Your task to perform on an android device: Open calendar and show me the fourth week of next month Image 0: 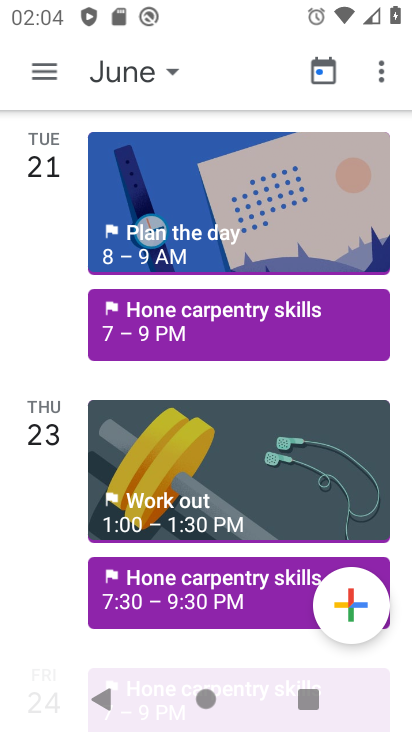
Step 0: click (173, 81)
Your task to perform on an android device: Open calendar and show me the fourth week of next month Image 1: 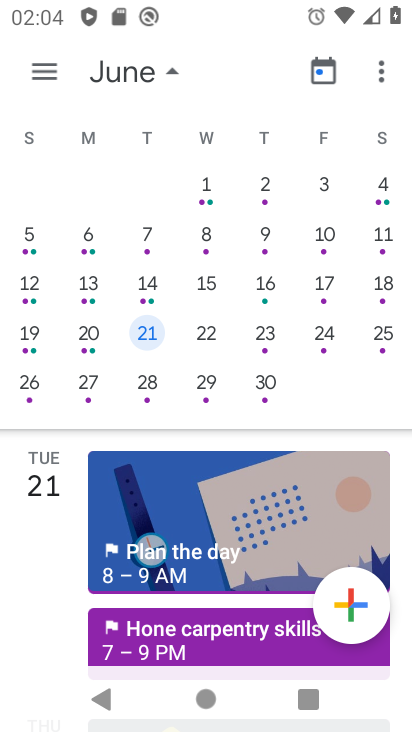
Step 1: click (173, 329)
Your task to perform on an android device: Open calendar and show me the fourth week of next month Image 2: 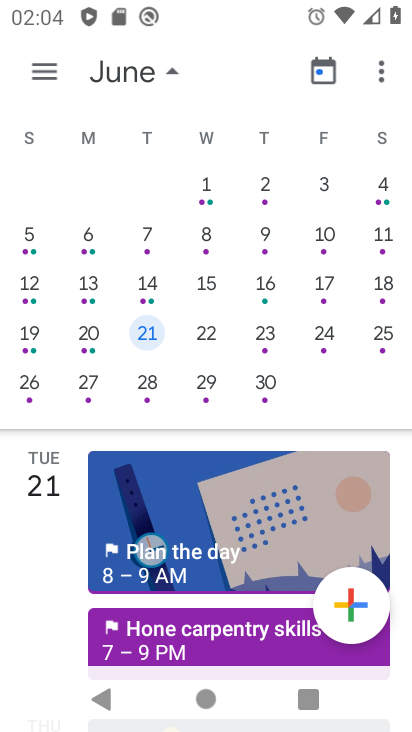
Step 2: task complete